Your task to perform on an android device: Toggle the flashlight Image 0: 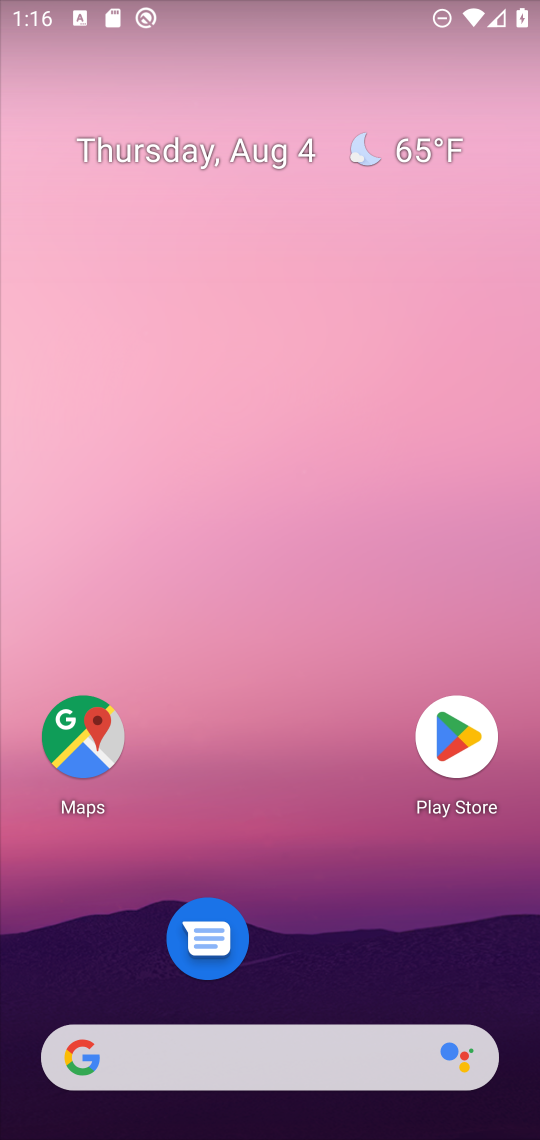
Step 0: drag from (210, 1) to (514, 1007)
Your task to perform on an android device: Toggle the flashlight Image 1: 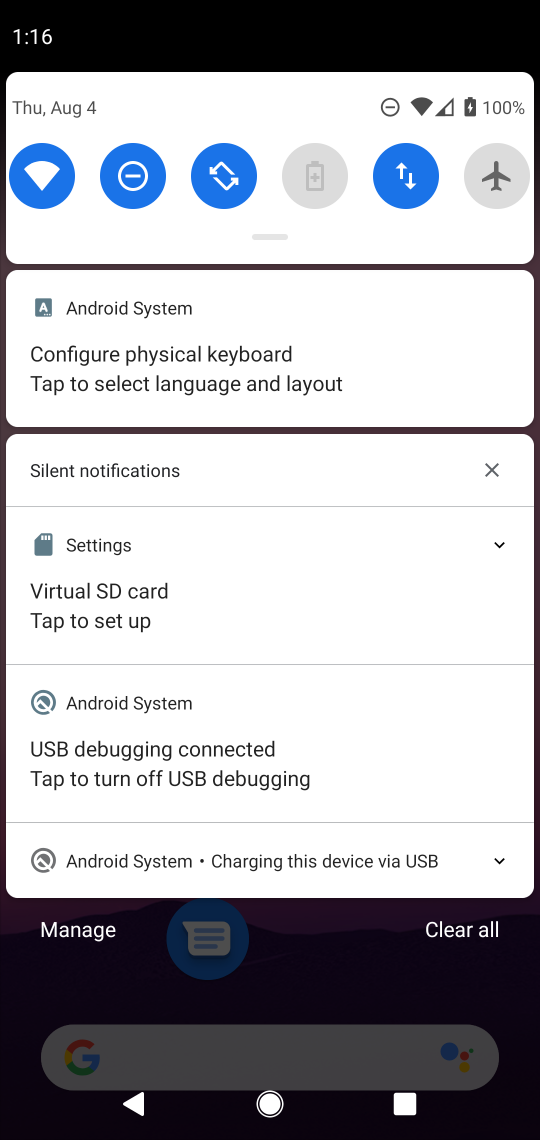
Step 1: task complete